Your task to perform on an android device: open device folders in google photos Image 0: 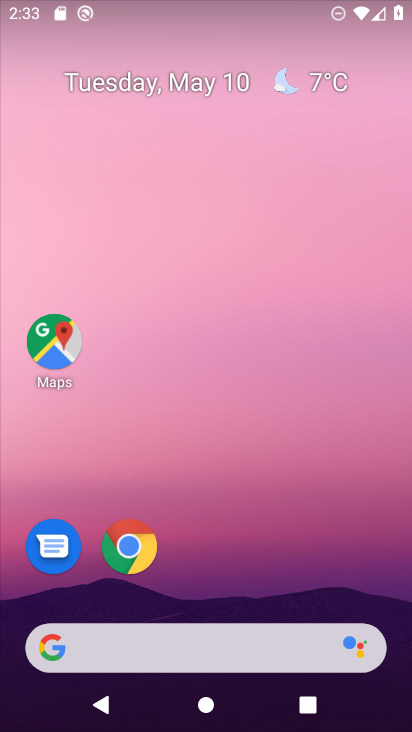
Step 0: drag from (292, 560) to (292, 176)
Your task to perform on an android device: open device folders in google photos Image 1: 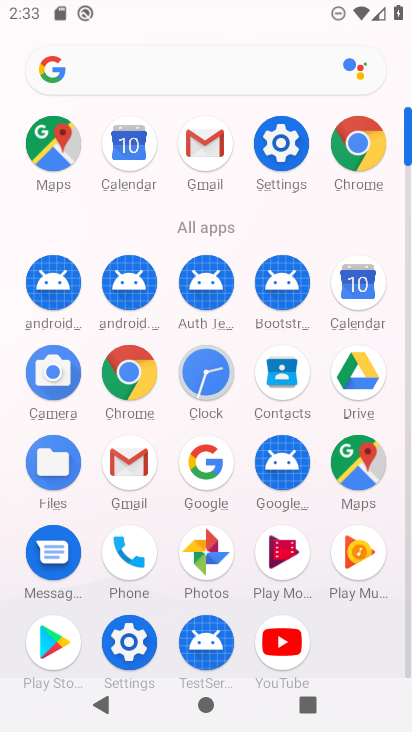
Step 1: click (220, 548)
Your task to perform on an android device: open device folders in google photos Image 2: 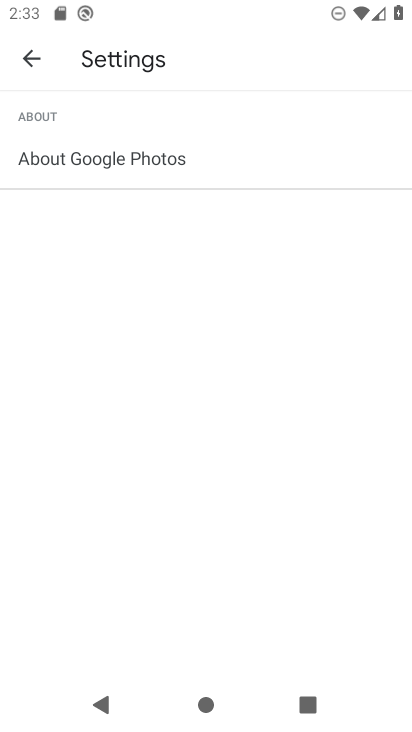
Step 2: press back button
Your task to perform on an android device: open device folders in google photos Image 3: 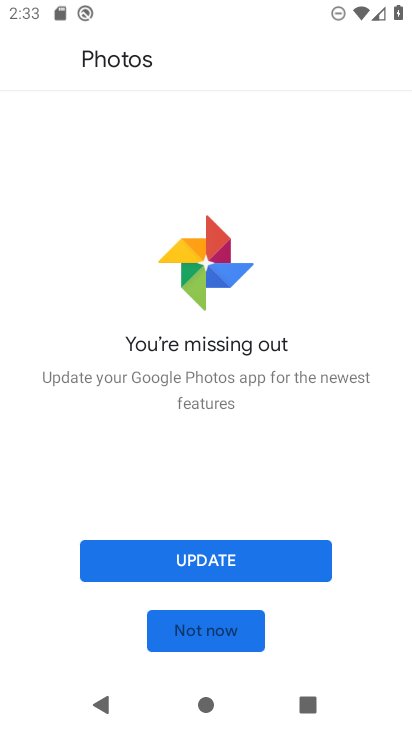
Step 3: click (237, 569)
Your task to perform on an android device: open device folders in google photos Image 4: 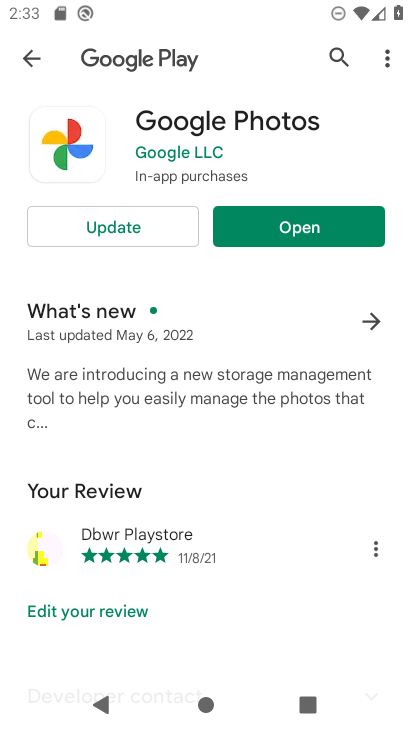
Step 4: click (141, 227)
Your task to perform on an android device: open device folders in google photos Image 5: 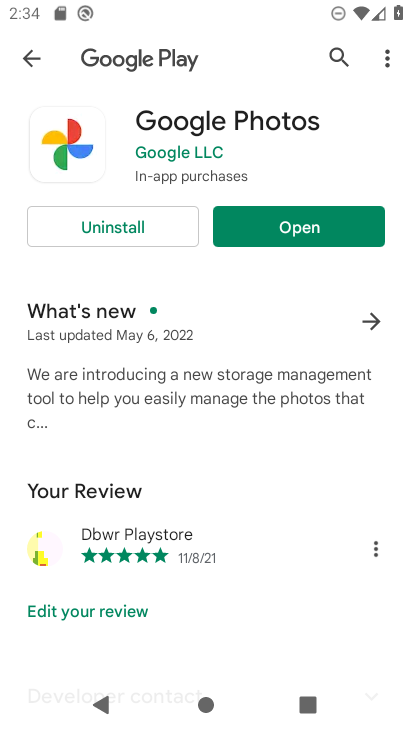
Step 5: click (271, 238)
Your task to perform on an android device: open device folders in google photos Image 6: 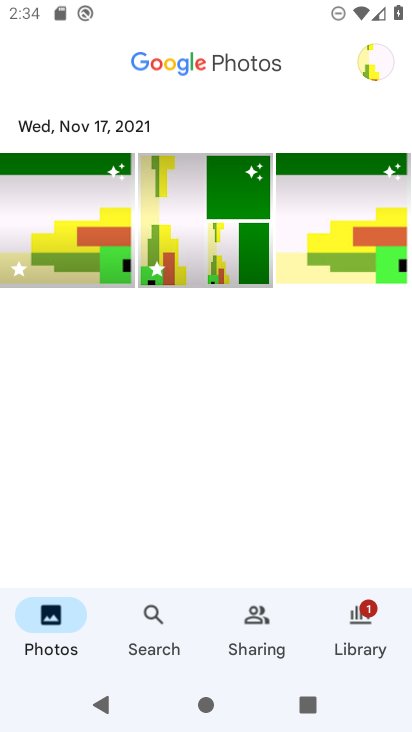
Step 6: click (160, 632)
Your task to perform on an android device: open device folders in google photos Image 7: 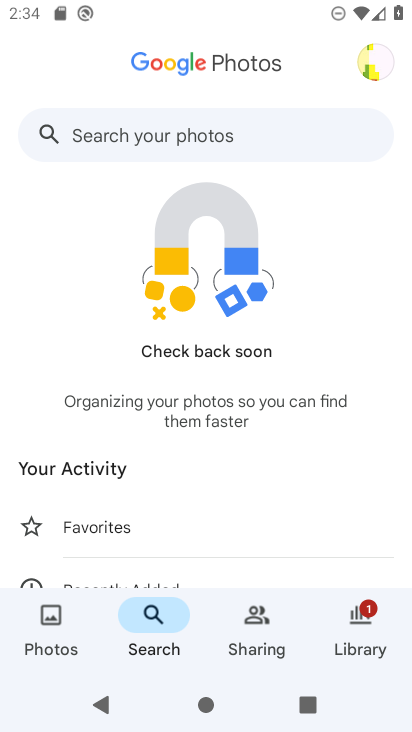
Step 7: click (171, 122)
Your task to perform on an android device: open device folders in google photos Image 8: 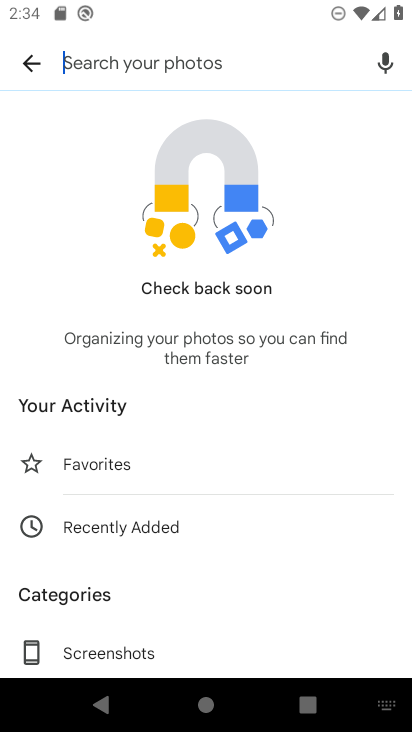
Step 8: type "device folders"
Your task to perform on an android device: open device folders in google photos Image 9: 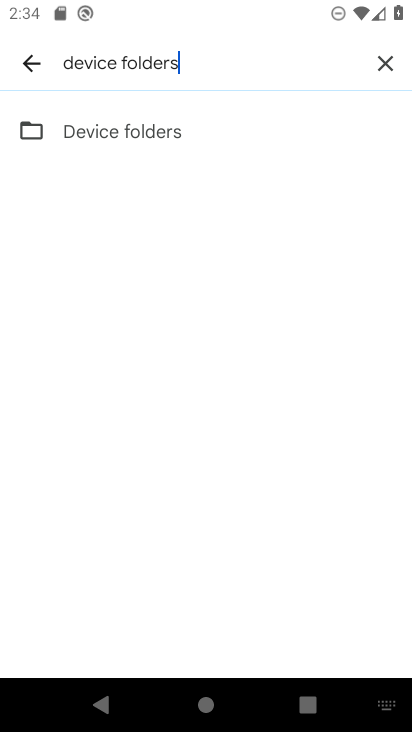
Step 9: click (163, 132)
Your task to perform on an android device: open device folders in google photos Image 10: 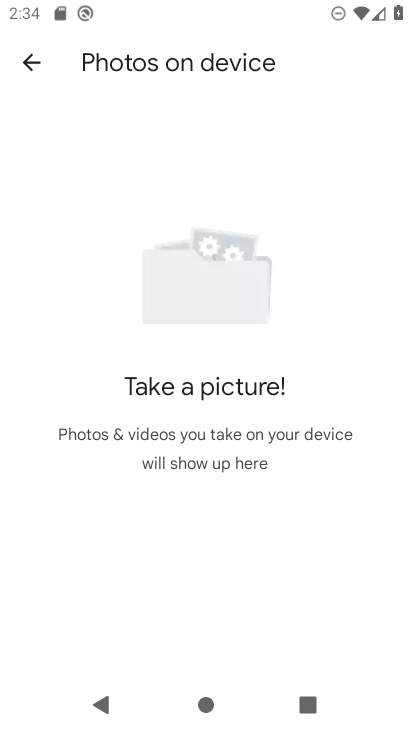
Step 10: task complete